Your task to perform on an android device: turn on priority inbox in the gmail app Image 0: 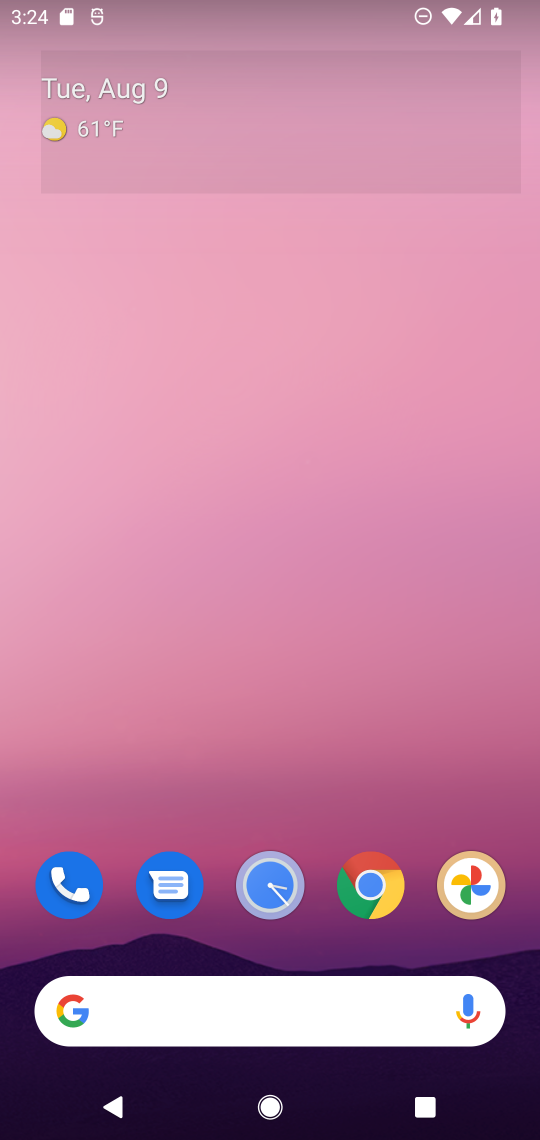
Step 0: drag from (352, 529) to (361, 173)
Your task to perform on an android device: turn on priority inbox in the gmail app Image 1: 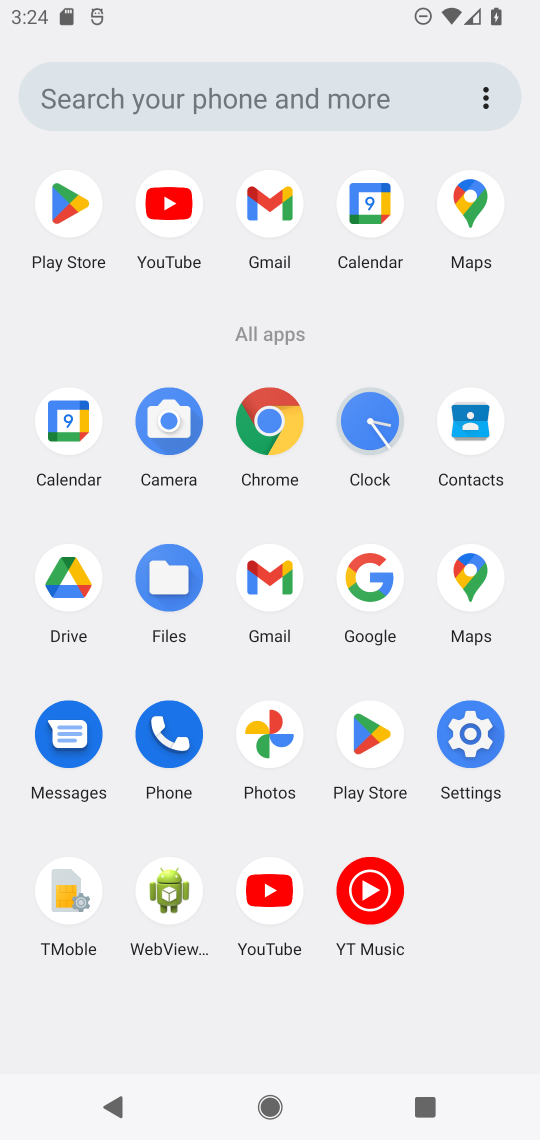
Step 1: click (274, 207)
Your task to perform on an android device: turn on priority inbox in the gmail app Image 2: 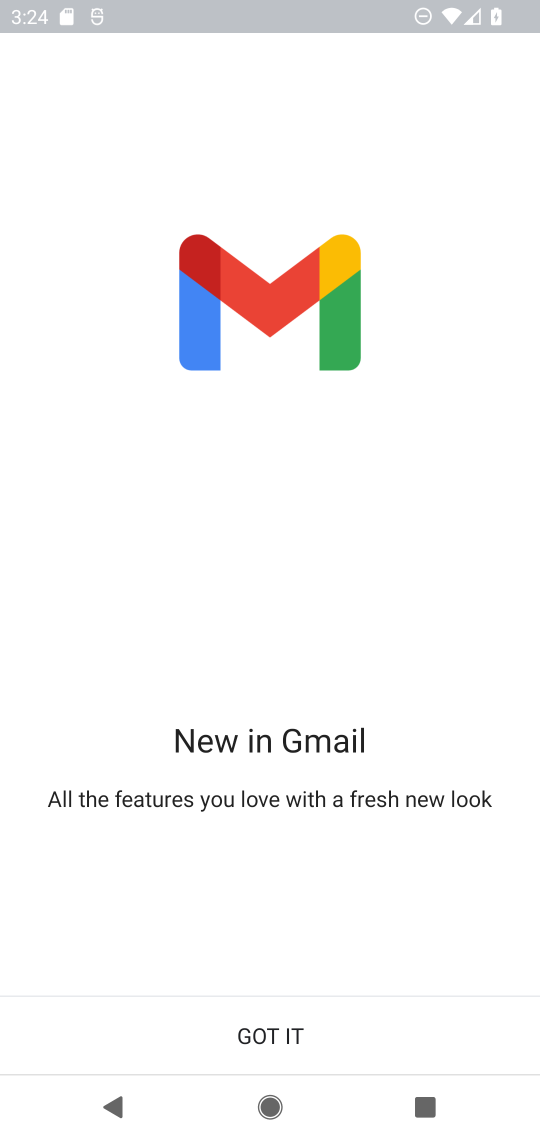
Step 2: click (251, 1037)
Your task to perform on an android device: turn on priority inbox in the gmail app Image 3: 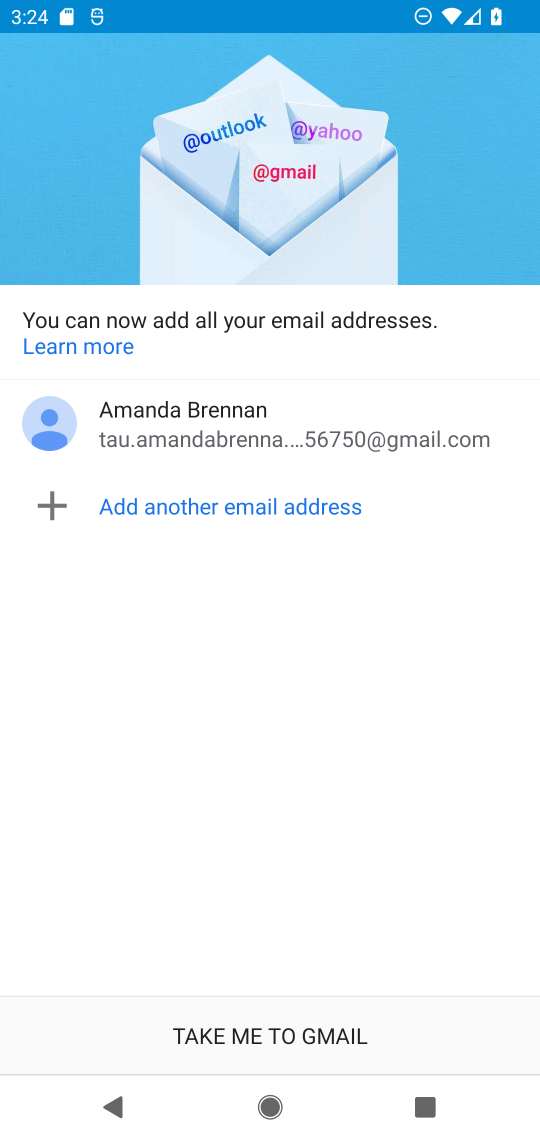
Step 3: click (281, 1018)
Your task to perform on an android device: turn on priority inbox in the gmail app Image 4: 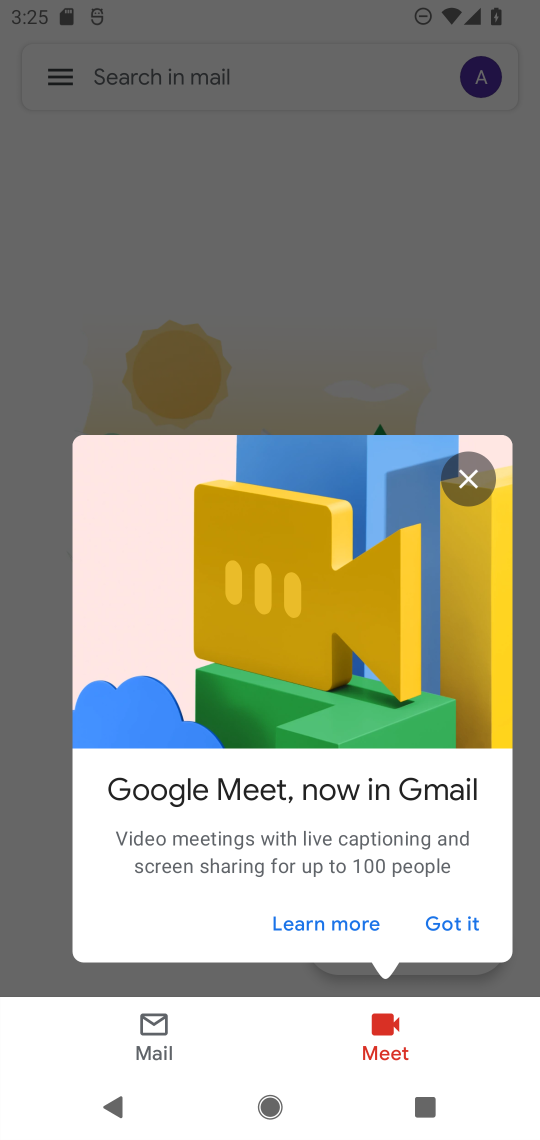
Step 4: press home button
Your task to perform on an android device: turn on priority inbox in the gmail app Image 5: 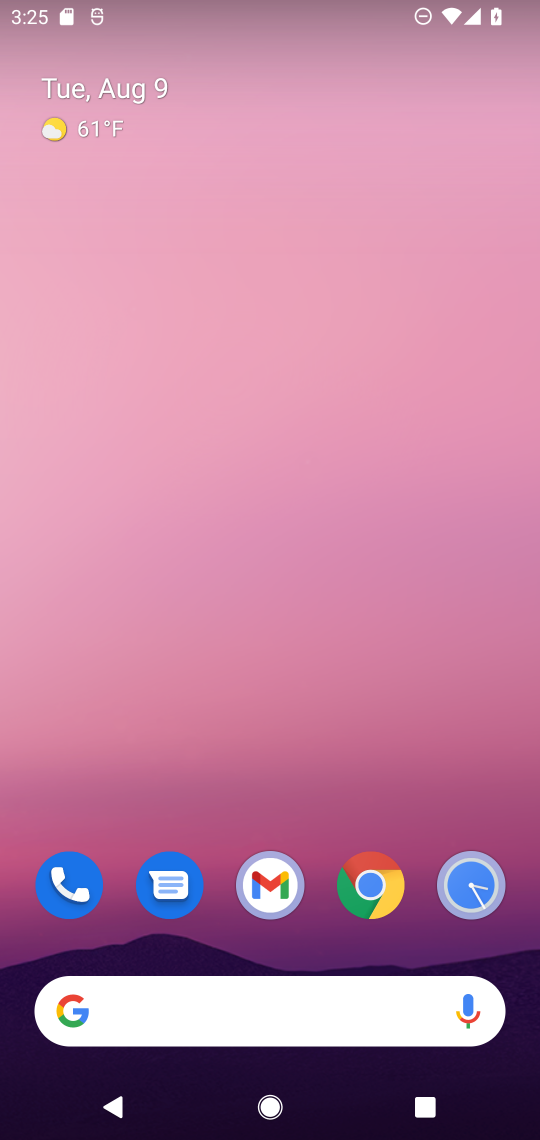
Step 5: click (287, 889)
Your task to perform on an android device: turn on priority inbox in the gmail app Image 6: 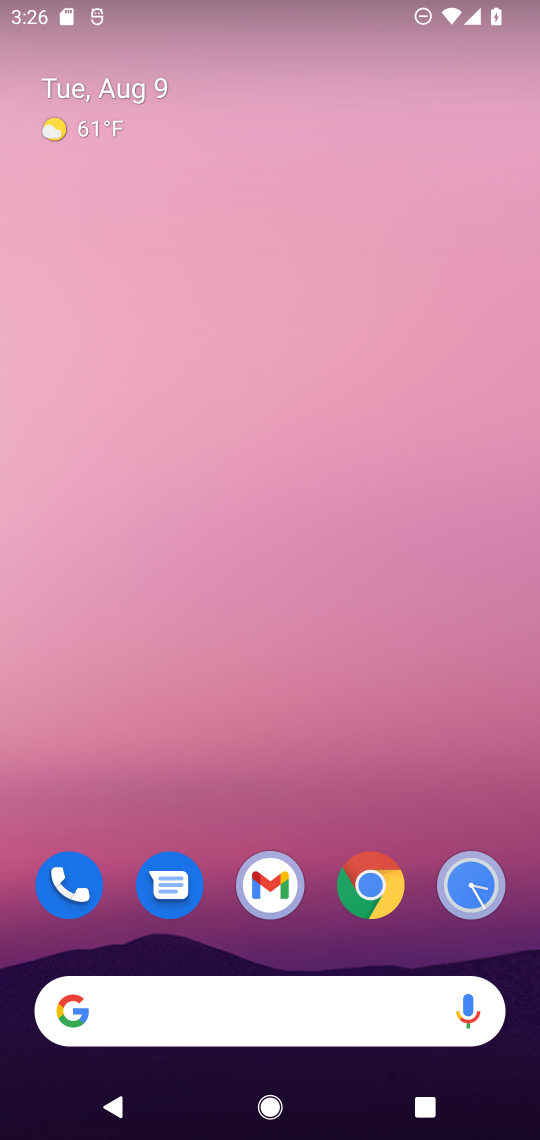
Step 6: click (287, 889)
Your task to perform on an android device: turn on priority inbox in the gmail app Image 7: 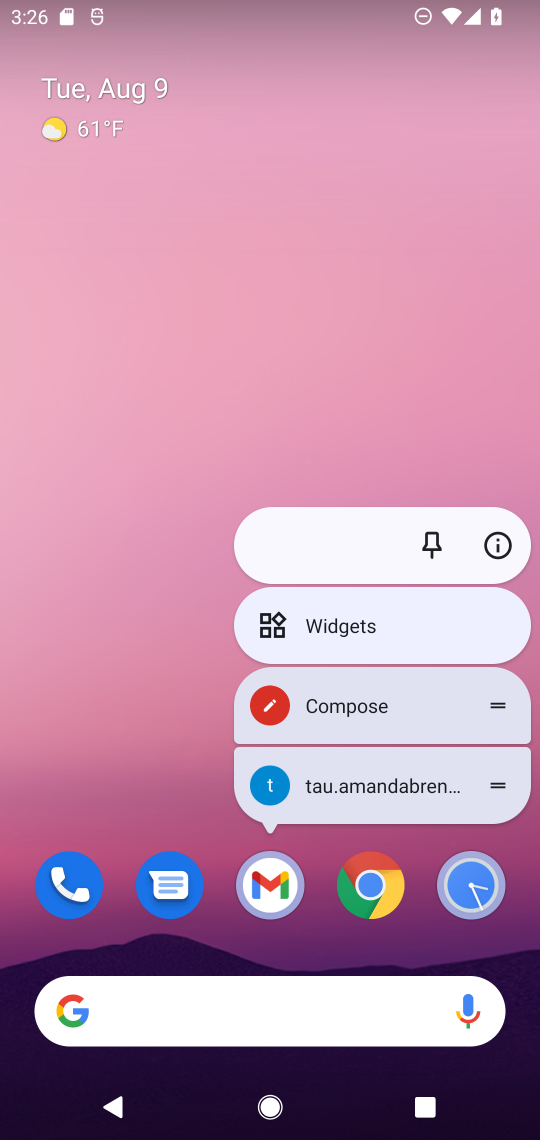
Step 7: click (253, 870)
Your task to perform on an android device: turn on priority inbox in the gmail app Image 8: 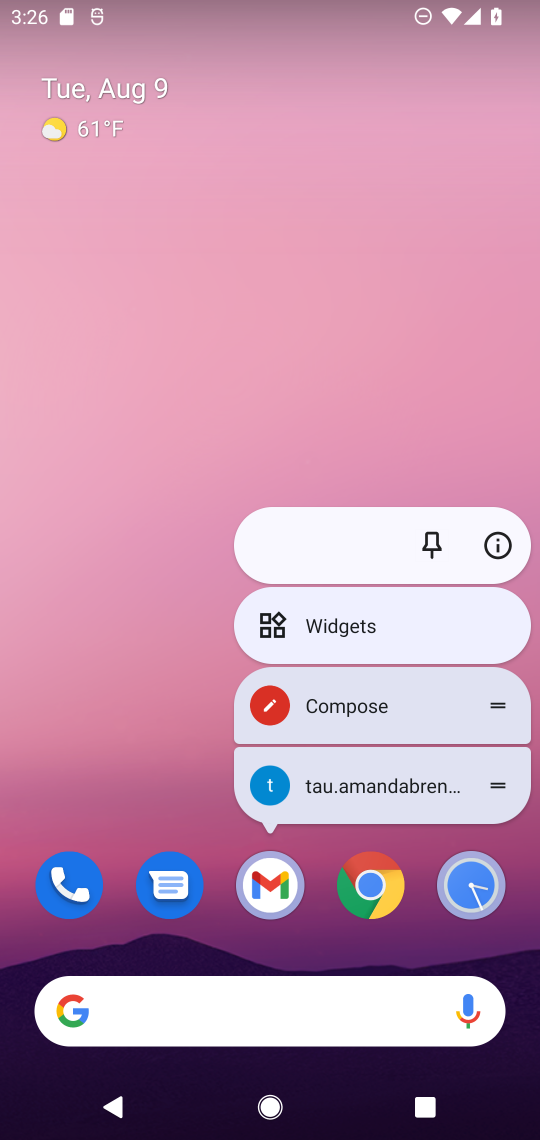
Step 8: drag from (174, 755) to (317, 37)
Your task to perform on an android device: turn on priority inbox in the gmail app Image 9: 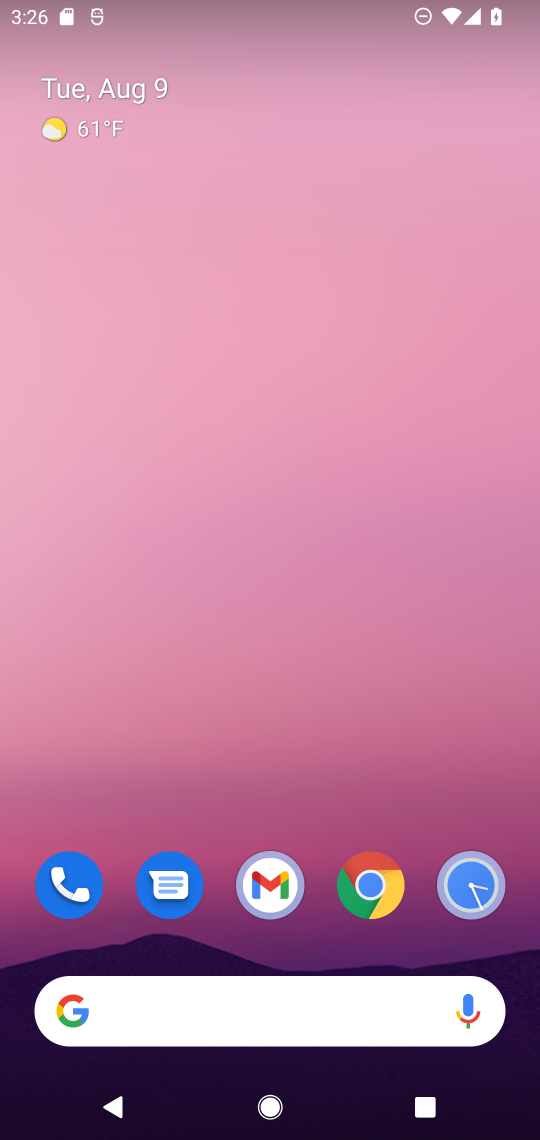
Step 9: click (278, 890)
Your task to perform on an android device: turn on priority inbox in the gmail app Image 10: 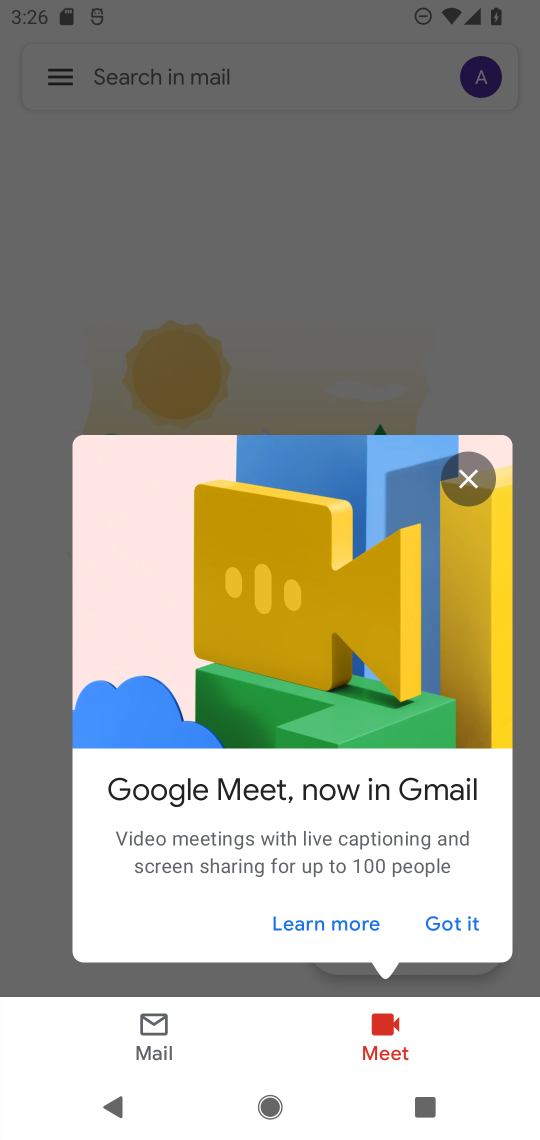
Step 10: task complete